Your task to perform on an android device: clear all cookies in the chrome app Image 0: 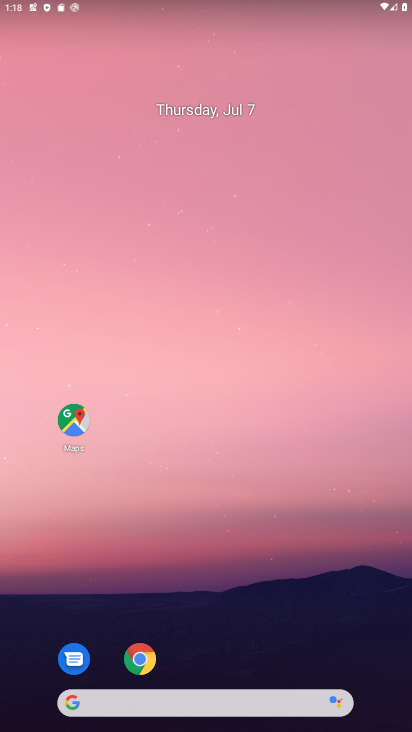
Step 0: press home button
Your task to perform on an android device: clear all cookies in the chrome app Image 1: 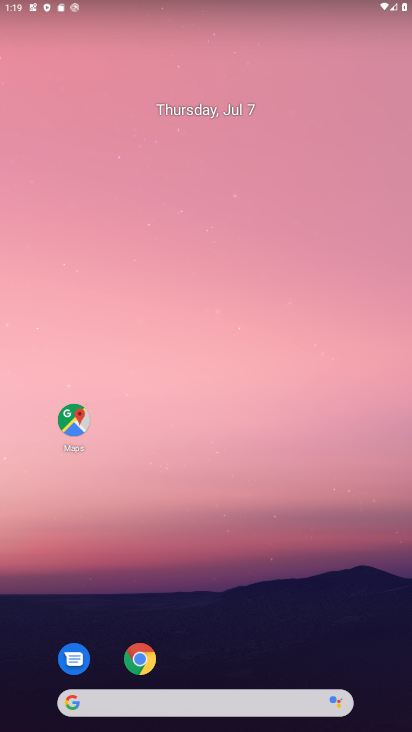
Step 1: click (134, 655)
Your task to perform on an android device: clear all cookies in the chrome app Image 2: 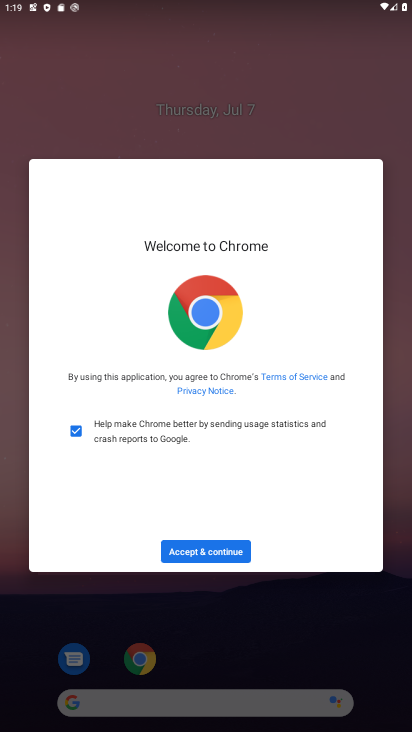
Step 2: click (201, 550)
Your task to perform on an android device: clear all cookies in the chrome app Image 3: 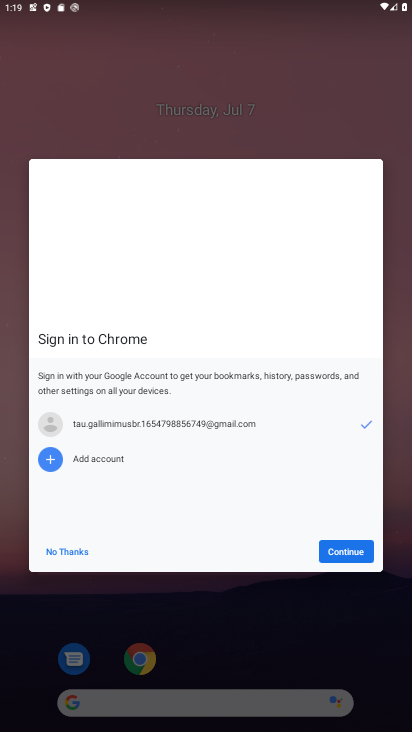
Step 3: click (345, 545)
Your task to perform on an android device: clear all cookies in the chrome app Image 4: 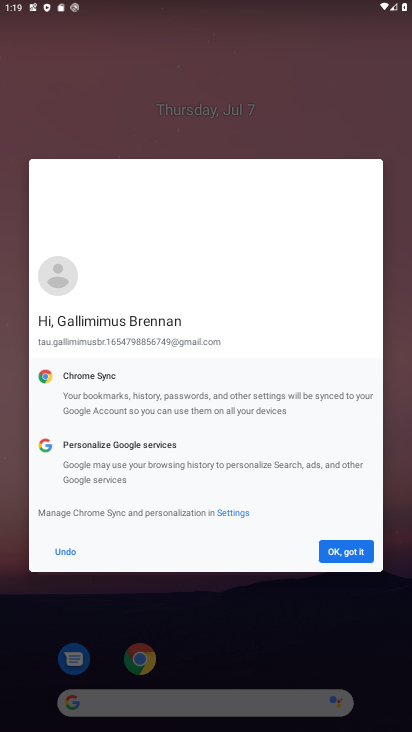
Step 4: click (342, 555)
Your task to perform on an android device: clear all cookies in the chrome app Image 5: 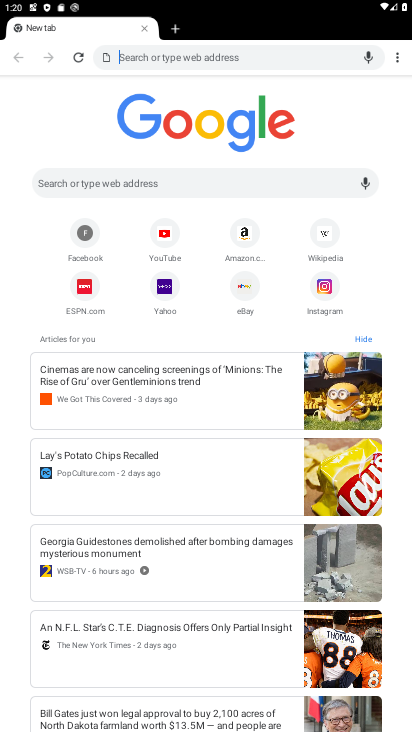
Step 5: click (399, 56)
Your task to perform on an android device: clear all cookies in the chrome app Image 6: 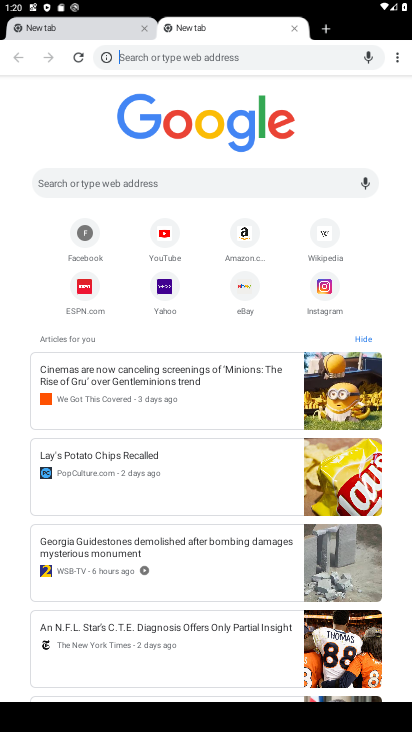
Step 6: click (399, 56)
Your task to perform on an android device: clear all cookies in the chrome app Image 7: 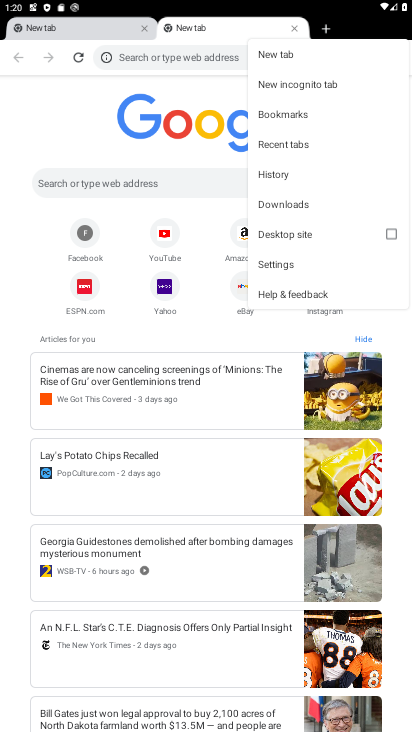
Step 7: click (281, 164)
Your task to perform on an android device: clear all cookies in the chrome app Image 8: 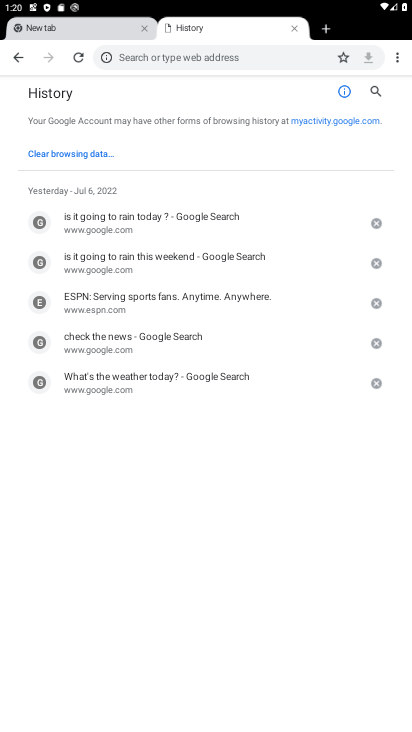
Step 8: click (62, 150)
Your task to perform on an android device: clear all cookies in the chrome app Image 9: 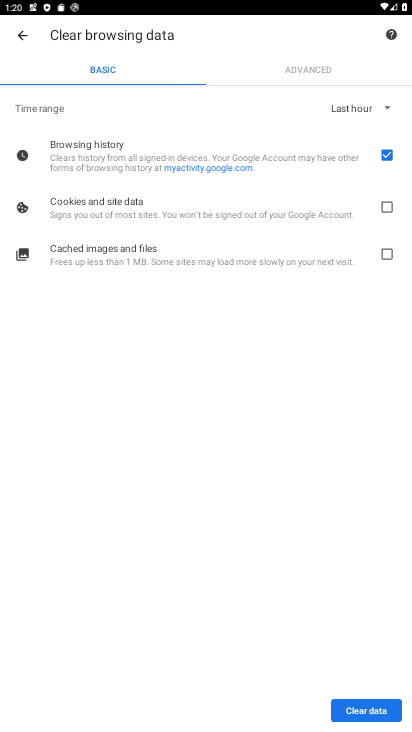
Step 9: click (386, 103)
Your task to perform on an android device: clear all cookies in the chrome app Image 10: 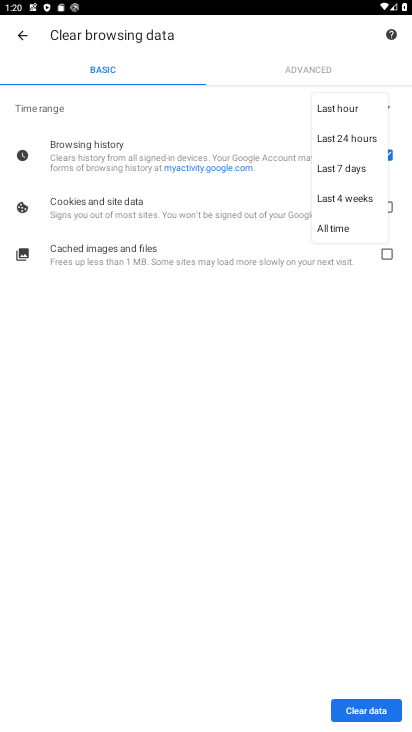
Step 10: click (339, 226)
Your task to perform on an android device: clear all cookies in the chrome app Image 11: 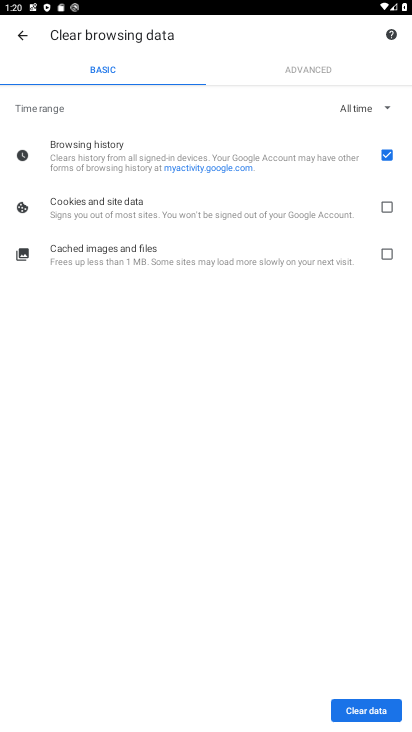
Step 11: click (388, 203)
Your task to perform on an android device: clear all cookies in the chrome app Image 12: 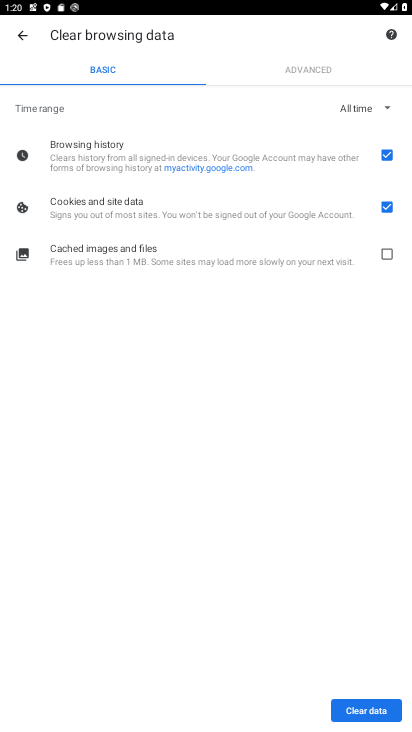
Step 12: click (385, 252)
Your task to perform on an android device: clear all cookies in the chrome app Image 13: 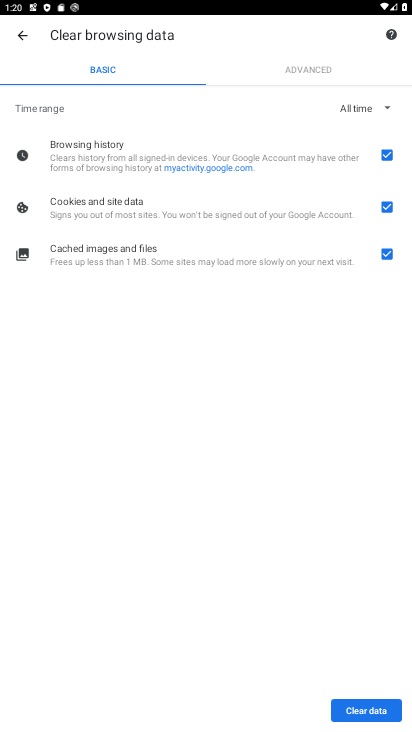
Step 13: click (366, 707)
Your task to perform on an android device: clear all cookies in the chrome app Image 14: 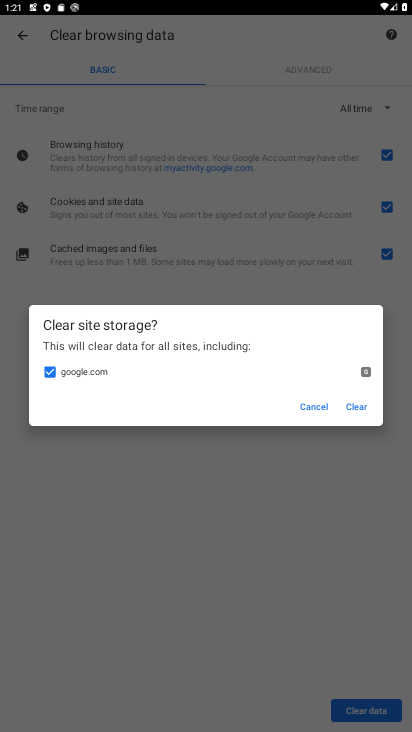
Step 14: click (351, 402)
Your task to perform on an android device: clear all cookies in the chrome app Image 15: 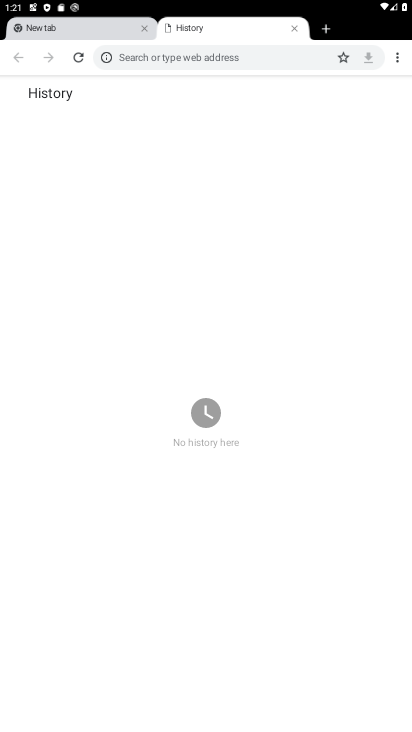
Step 15: task complete